Your task to perform on an android device: manage bookmarks in the chrome app Image 0: 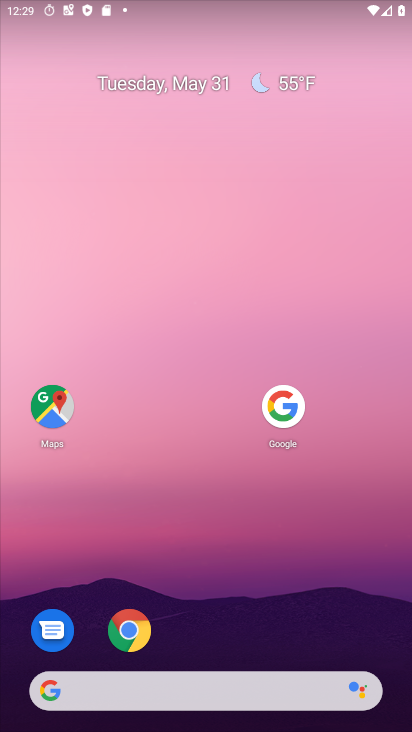
Step 0: click (132, 643)
Your task to perform on an android device: manage bookmarks in the chrome app Image 1: 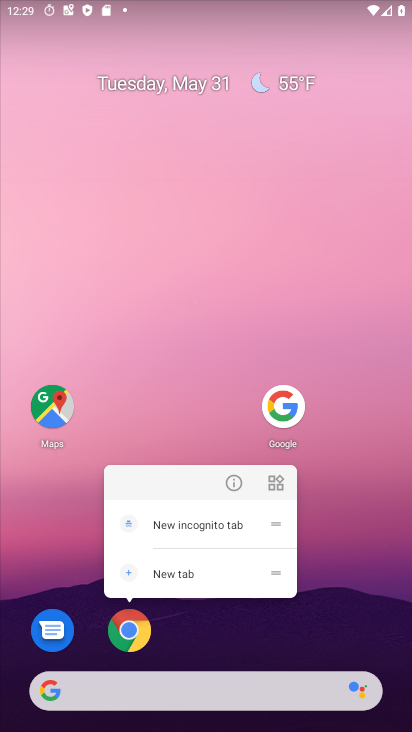
Step 1: click (130, 636)
Your task to perform on an android device: manage bookmarks in the chrome app Image 2: 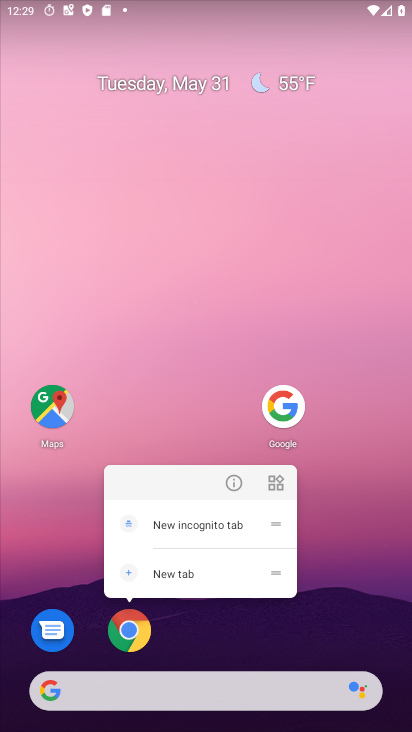
Step 2: click (129, 633)
Your task to perform on an android device: manage bookmarks in the chrome app Image 3: 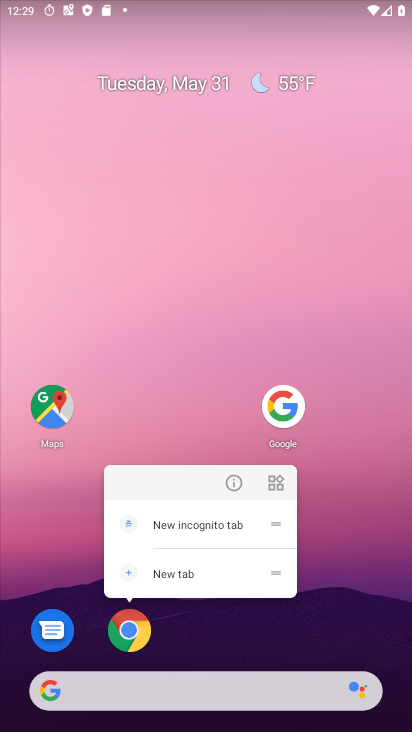
Step 3: click (129, 632)
Your task to perform on an android device: manage bookmarks in the chrome app Image 4: 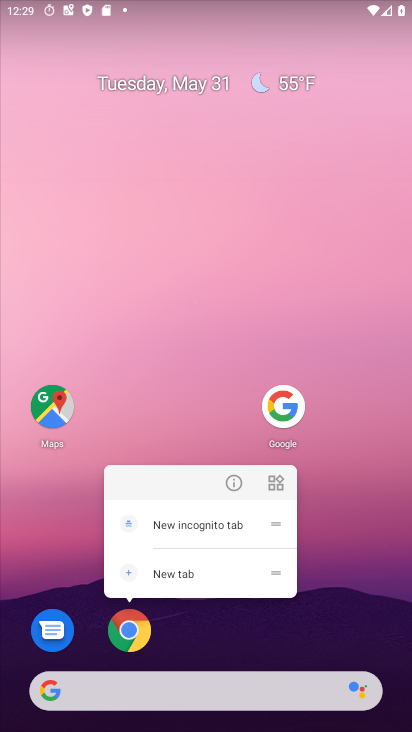
Step 4: click (129, 630)
Your task to perform on an android device: manage bookmarks in the chrome app Image 5: 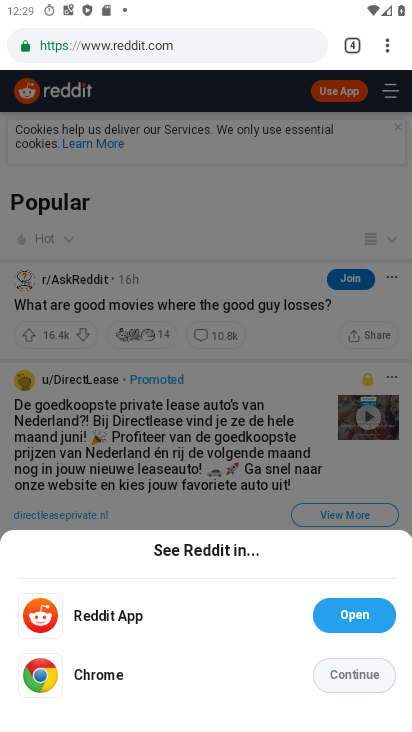
Step 5: task complete